Your task to perform on an android device: Open the phone app and click the voicemail tab. Image 0: 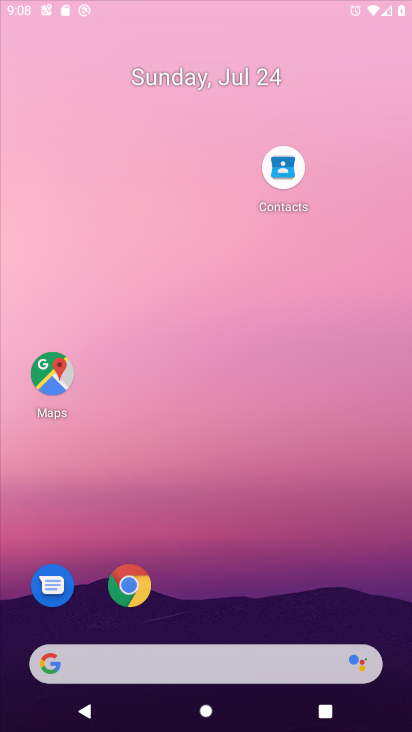
Step 0: press home button
Your task to perform on an android device: Open the phone app and click the voicemail tab. Image 1: 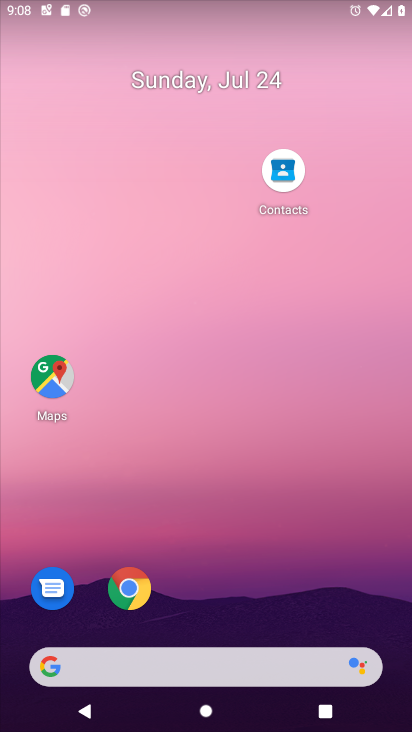
Step 1: drag from (206, 627) to (203, 18)
Your task to perform on an android device: Open the phone app and click the voicemail tab. Image 2: 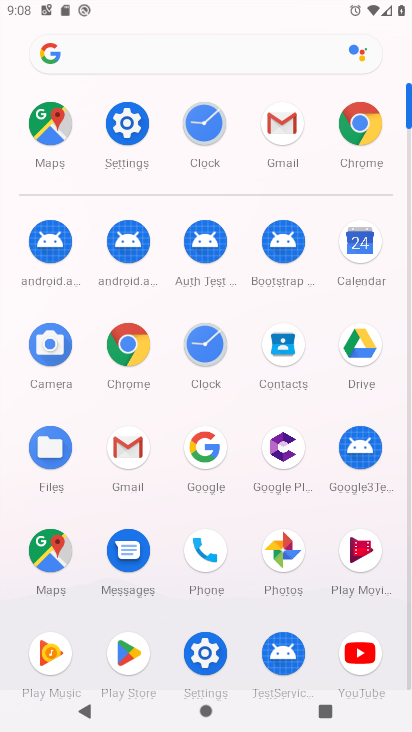
Step 2: click (204, 547)
Your task to perform on an android device: Open the phone app and click the voicemail tab. Image 3: 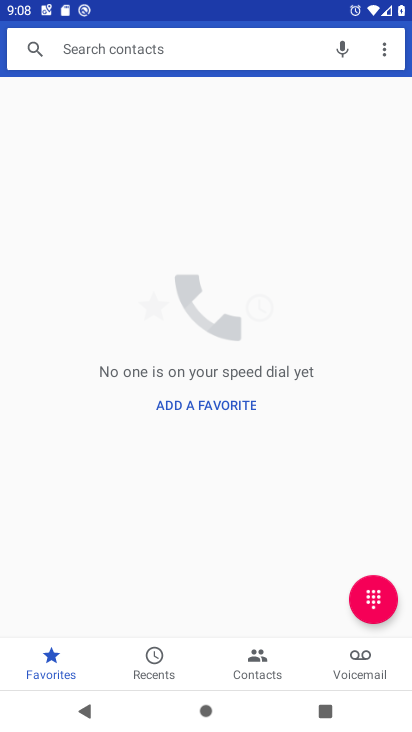
Step 3: click (353, 653)
Your task to perform on an android device: Open the phone app and click the voicemail tab. Image 4: 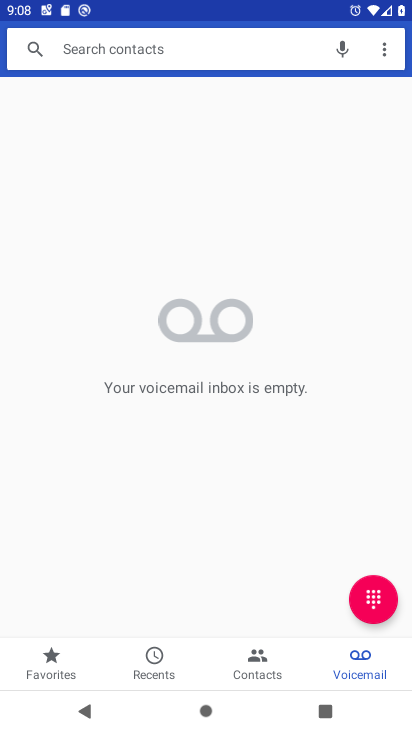
Step 4: task complete